Your task to perform on an android device: Go to wifi settings Image 0: 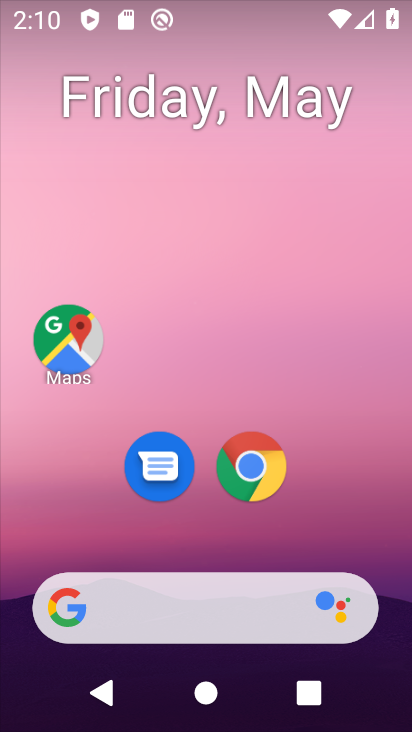
Step 0: drag from (377, 530) to (281, 26)
Your task to perform on an android device: Go to wifi settings Image 1: 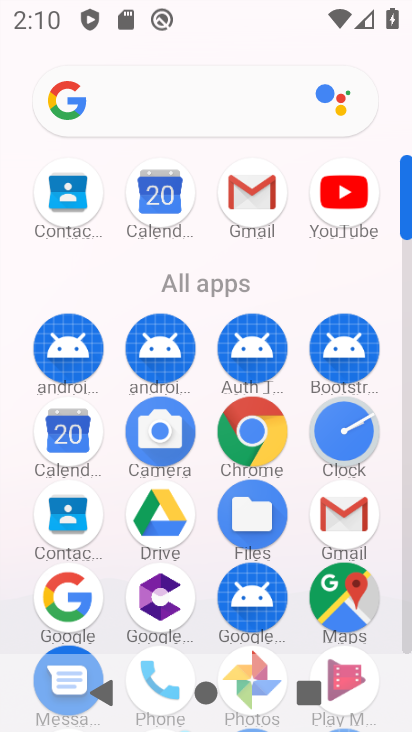
Step 1: click (407, 579)
Your task to perform on an android device: Go to wifi settings Image 2: 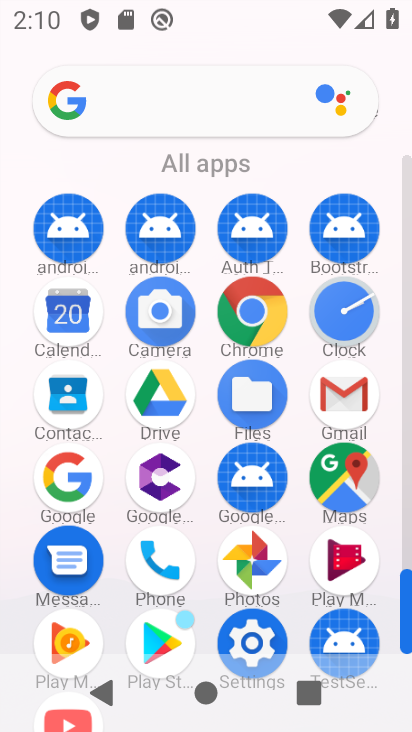
Step 2: click (251, 633)
Your task to perform on an android device: Go to wifi settings Image 3: 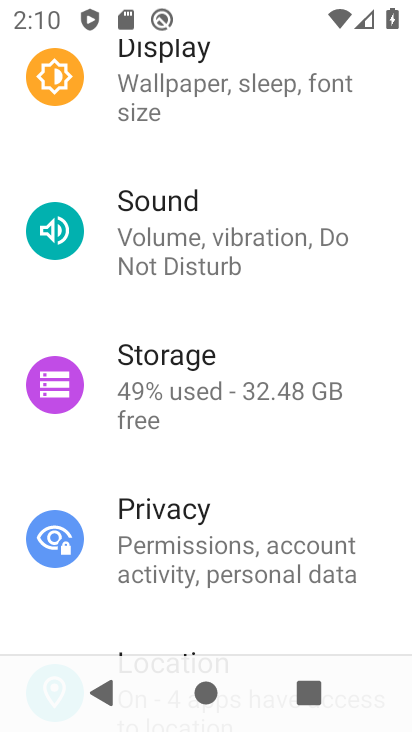
Step 3: drag from (258, 225) to (256, 673)
Your task to perform on an android device: Go to wifi settings Image 4: 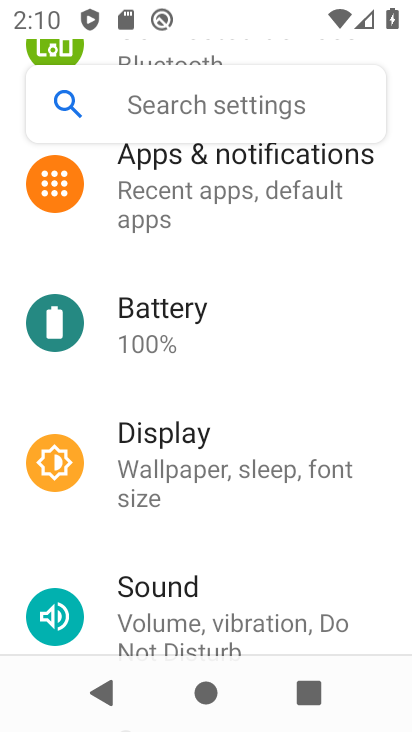
Step 4: drag from (256, 358) to (305, 710)
Your task to perform on an android device: Go to wifi settings Image 5: 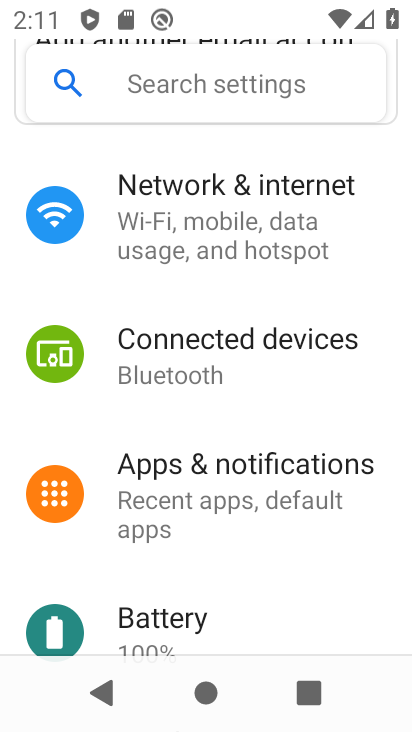
Step 5: click (191, 199)
Your task to perform on an android device: Go to wifi settings Image 6: 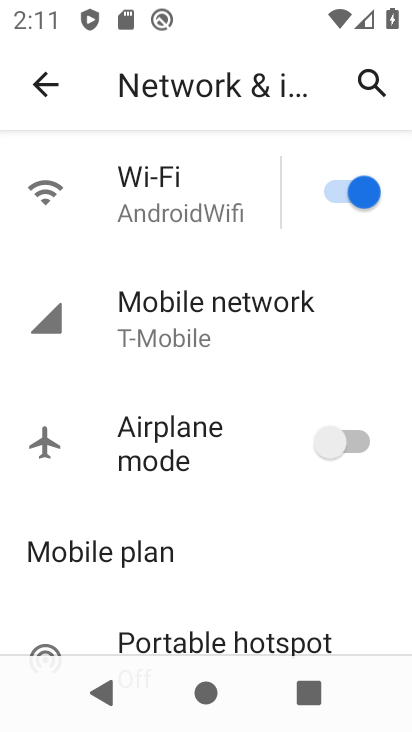
Step 6: click (191, 199)
Your task to perform on an android device: Go to wifi settings Image 7: 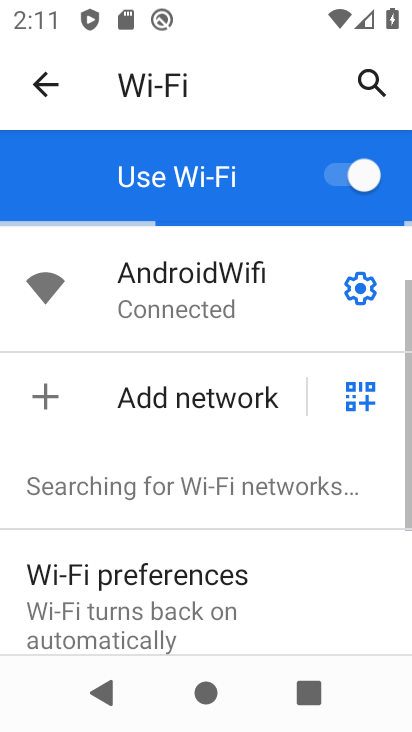
Step 7: task complete